Your task to perform on an android device: Show me productivity apps on the Play Store Image 0: 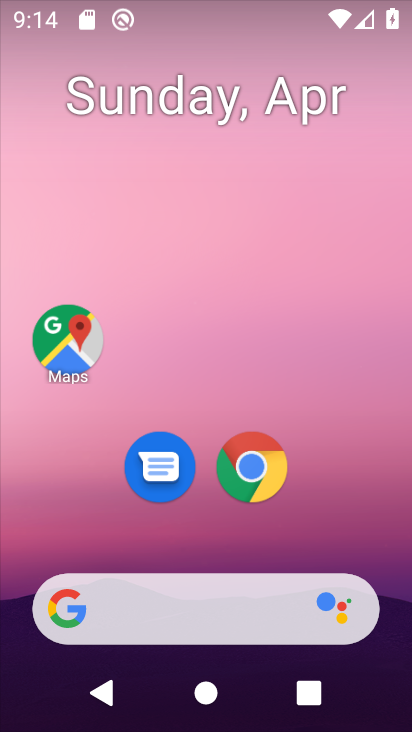
Step 0: drag from (307, 509) to (393, 0)
Your task to perform on an android device: Show me productivity apps on the Play Store Image 1: 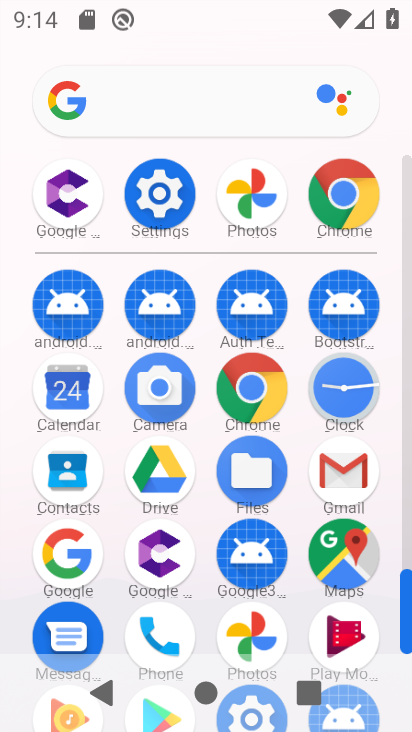
Step 1: drag from (201, 598) to (184, 338)
Your task to perform on an android device: Show me productivity apps on the Play Store Image 2: 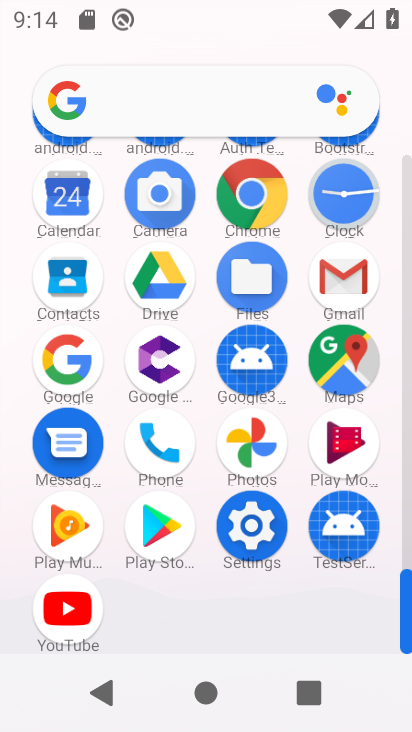
Step 2: click (160, 525)
Your task to perform on an android device: Show me productivity apps on the Play Store Image 3: 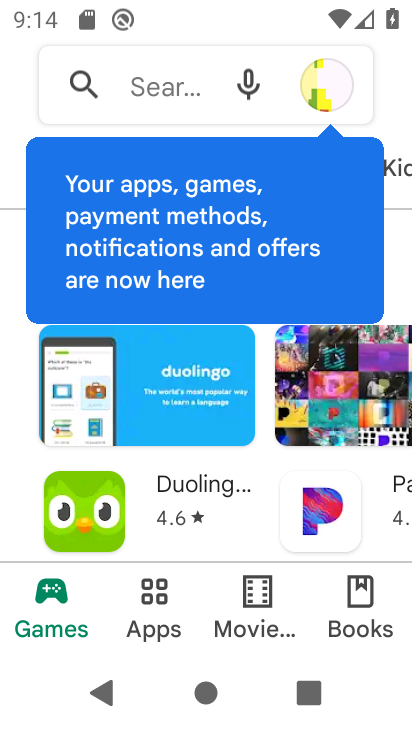
Step 3: click (162, 613)
Your task to perform on an android device: Show me productivity apps on the Play Store Image 4: 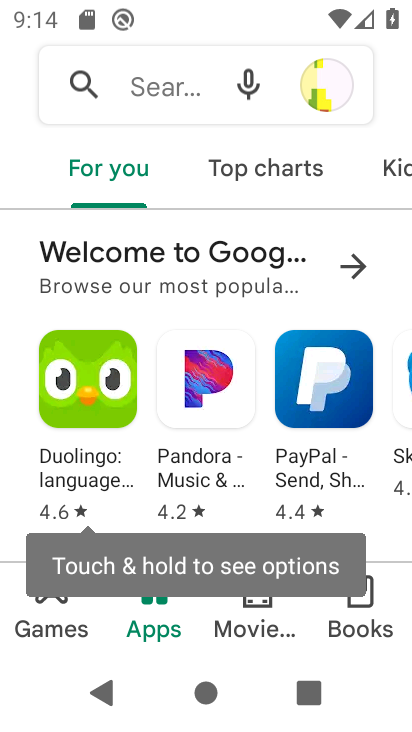
Step 4: drag from (362, 165) to (230, 137)
Your task to perform on an android device: Show me productivity apps on the Play Store Image 5: 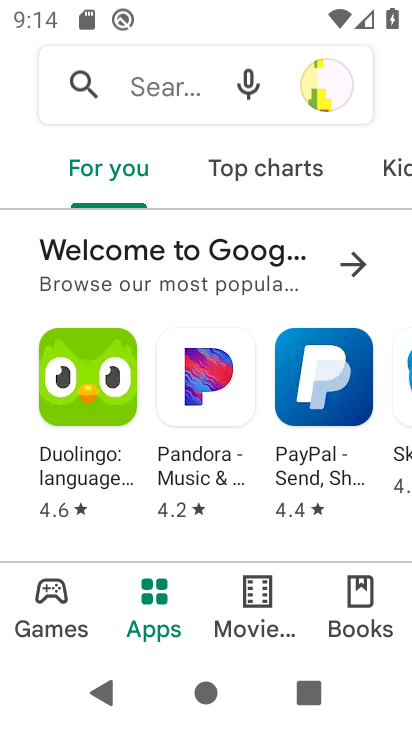
Step 5: drag from (384, 172) to (77, 180)
Your task to perform on an android device: Show me productivity apps on the Play Store Image 6: 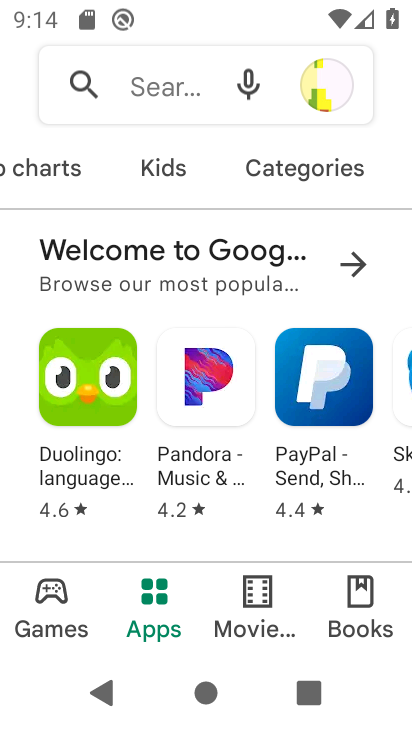
Step 6: click (322, 171)
Your task to perform on an android device: Show me productivity apps on the Play Store Image 7: 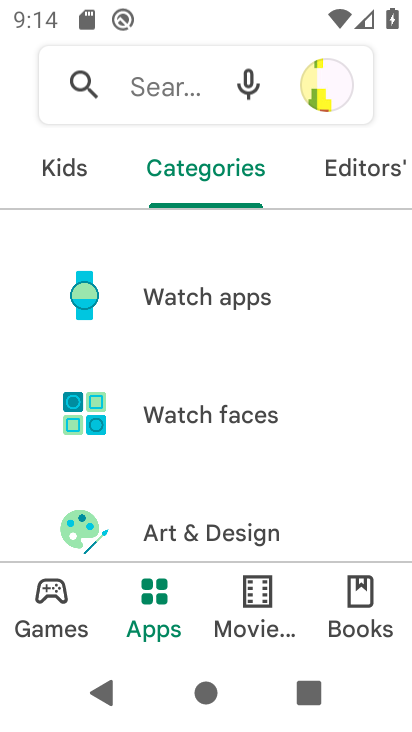
Step 7: drag from (240, 481) to (249, 227)
Your task to perform on an android device: Show me productivity apps on the Play Store Image 8: 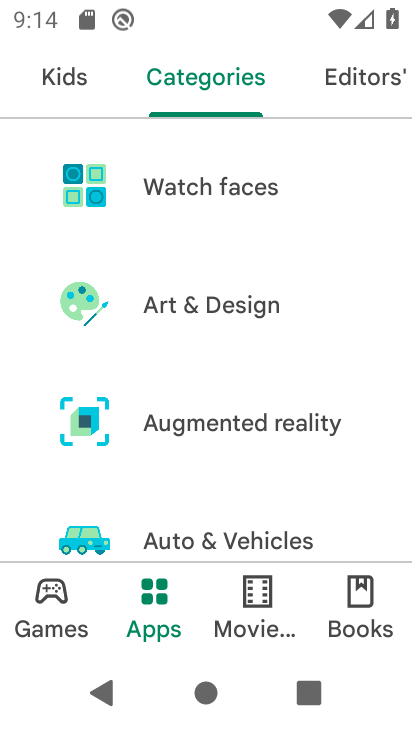
Step 8: drag from (252, 457) to (252, 302)
Your task to perform on an android device: Show me productivity apps on the Play Store Image 9: 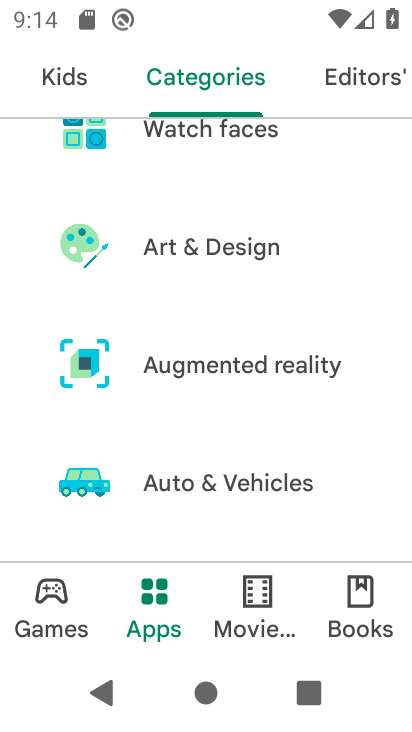
Step 9: drag from (227, 426) to (229, 325)
Your task to perform on an android device: Show me productivity apps on the Play Store Image 10: 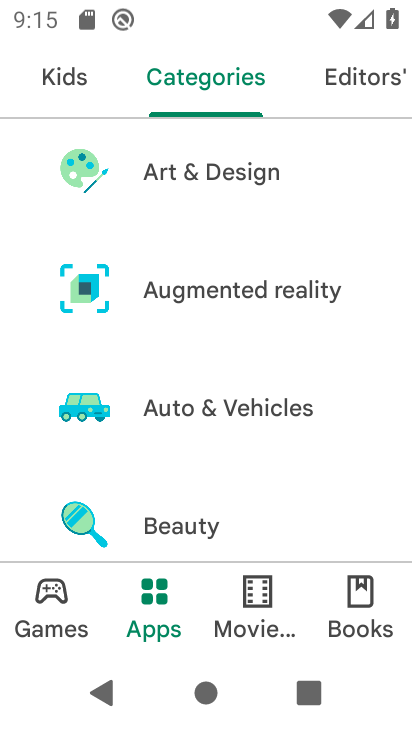
Step 10: drag from (229, 469) to (233, 311)
Your task to perform on an android device: Show me productivity apps on the Play Store Image 11: 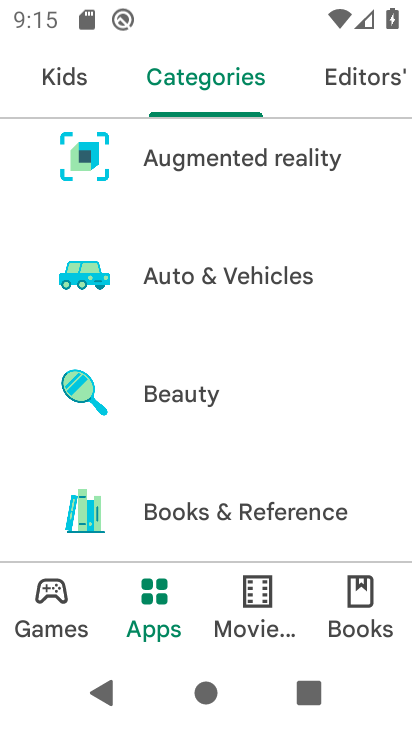
Step 11: drag from (232, 438) to (234, 282)
Your task to perform on an android device: Show me productivity apps on the Play Store Image 12: 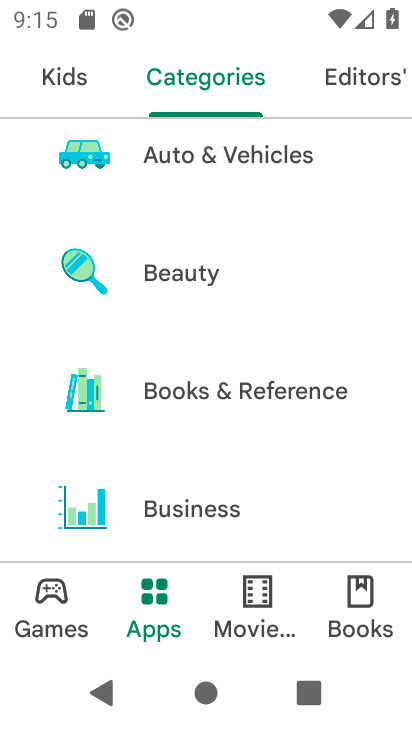
Step 12: drag from (241, 438) to (220, 286)
Your task to perform on an android device: Show me productivity apps on the Play Store Image 13: 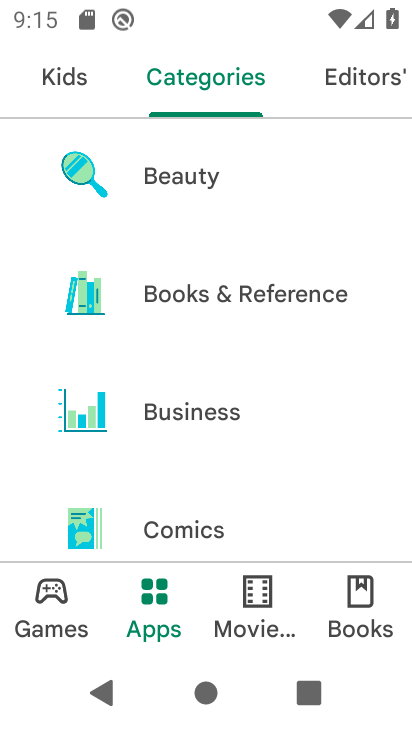
Step 13: drag from (221, 489) to (213, 275)
Your task to perform on an android device: Show me productivity apps on the Play Store Image 14: 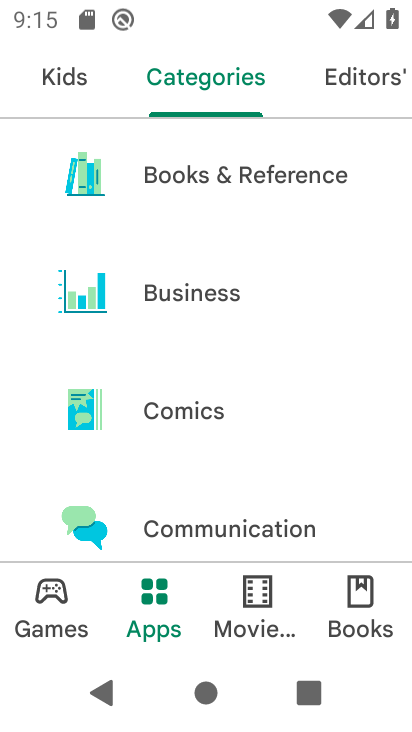
Step 14: drag from (223, 494) to (218, 312)
Your task to perform on an android device: Show me productivity apps on the Play Store Image 15: 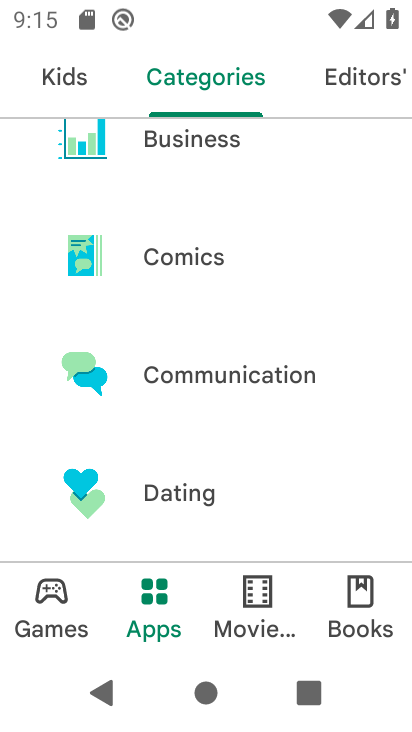
Step 15: drag from (210, 447) to (192, 286)
Your task to perform on an android device: Show me productivity apps on the Play Store Image 16: 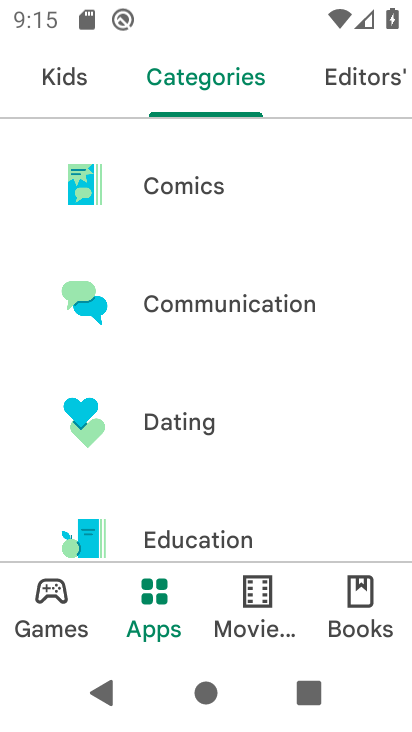
Step 16: drag from (208, 503) to (195, 231)
Your task to perform on an android device: Show me productivity apps on the Play Store Image 17: 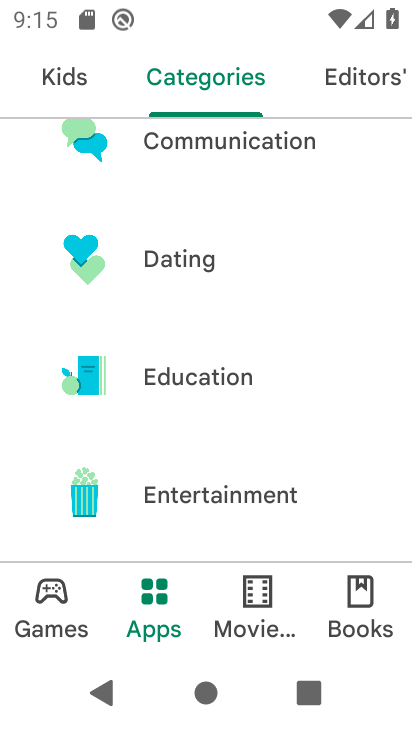
Step 17: drag from (321, 508) to (311, 259)
Your task to perform on an android device: Show me productivity apps on the Play Store Image 18: 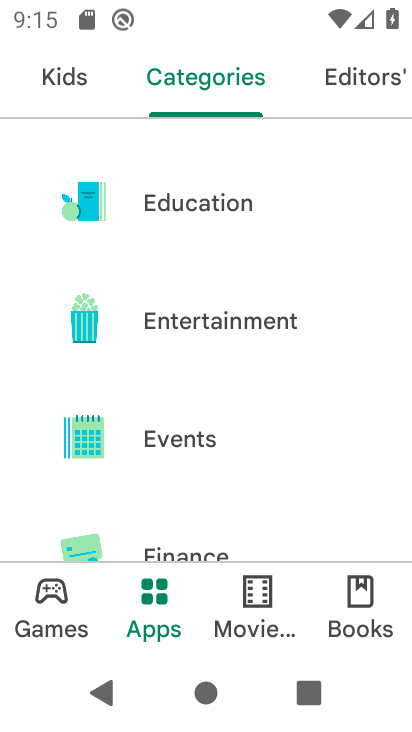
Step 18: drag from (311, 476) to (321, 285)
Your task to perform on an android device: Show me productivity apps on the Play Store Image 19: 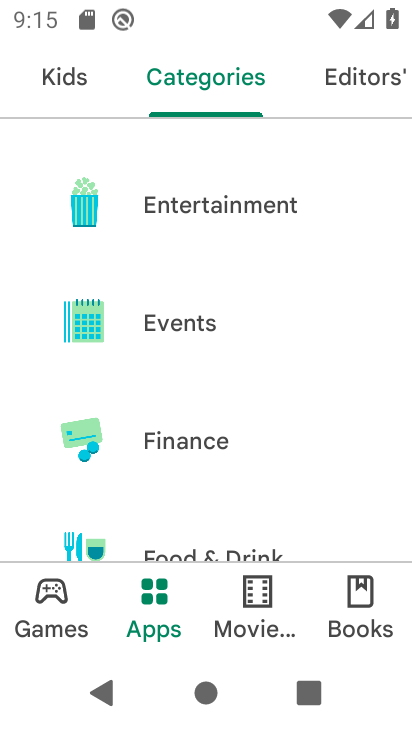
Step 19: drag from (313, 426) to (324, 211)
Your task to perform on an android device: Show me productivity apps on the Play Store Image 20: 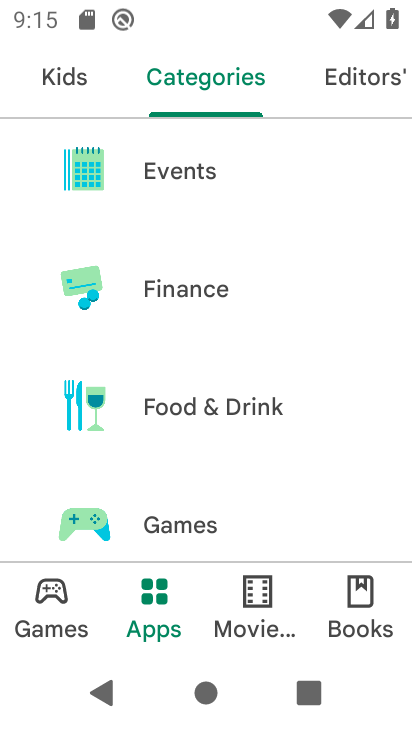
Step 20: drag from (334, 492) to (309, 243)
Your task to perform on an android device: Show me productivity apps on the Play Store Image 21: 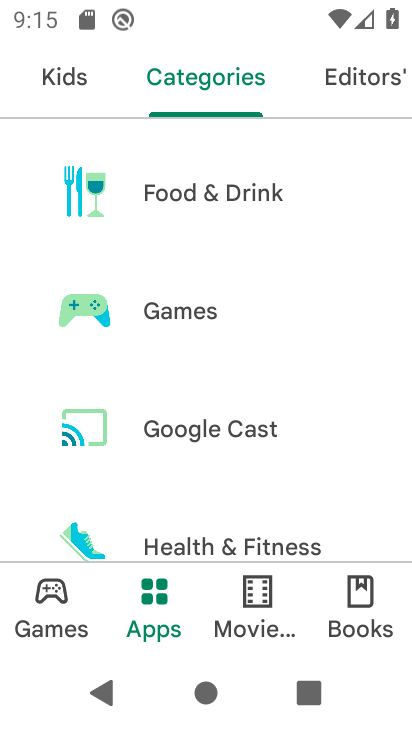
Step 21: drag from (259, 515) to (239, 265)
Your task to perform on an android device: Show me productivity apps on the Play Store Image 22: 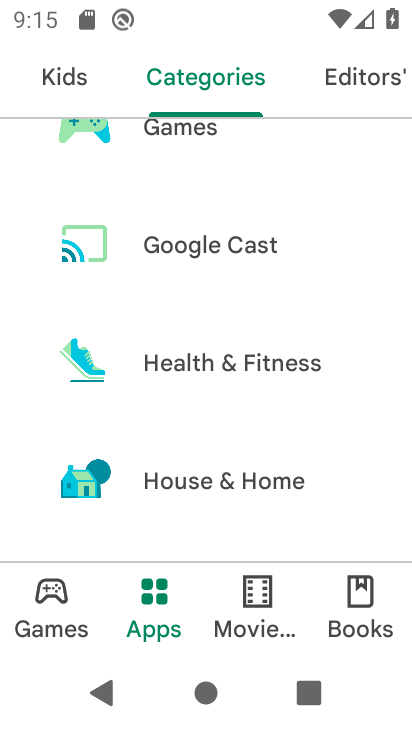
Step 22: drag from (268, 469) to (284, 68)
Your task to perform on an android device: Show me productivity apps on the Play Store Image 23: 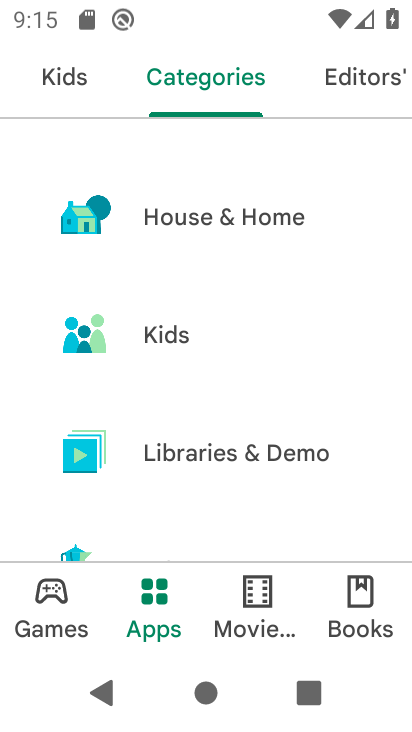
Step 23: drag from (231, 504) to (220, 138)
Your task to perform on an android device: Show me productivity apps on the Play Store Image 24: 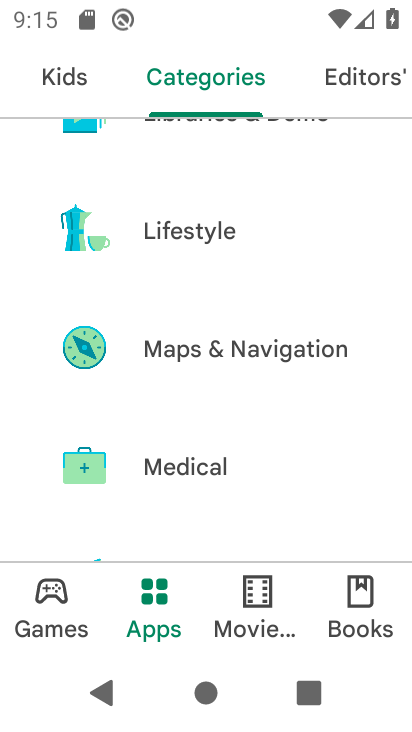
Step 24: drag from (228, 520) to (265, 116)
Your task to perform on an android device: Show me productivity apps on the Play Store Image 25: 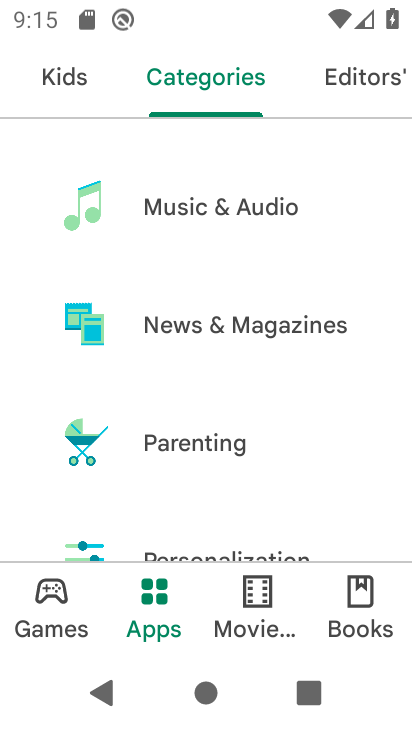
Step 25: drag from (261, 461) to (267, 106)
Your task to perform on an android device: Show me productivity apps on the Play Store Image 26: 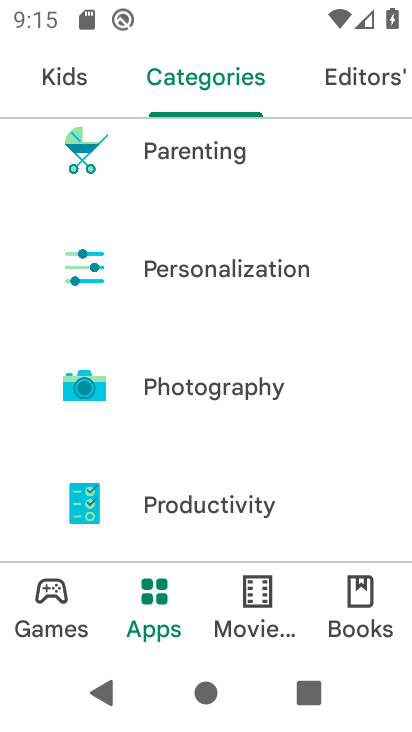
Step 26: click (240, 508)
Your task to perform on an android device: Show me productivity apps on the Play Store Image 27: 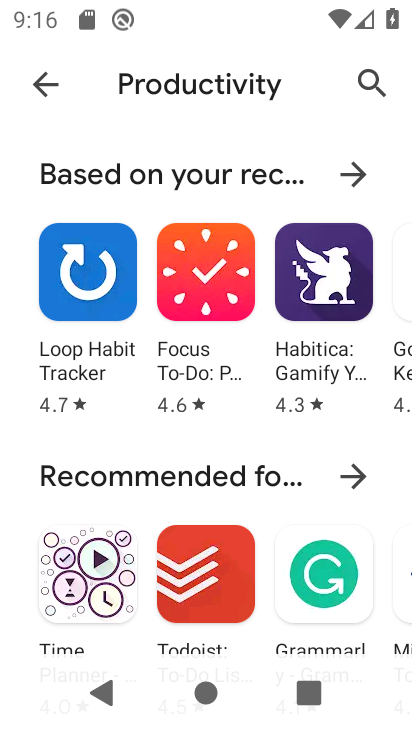
Step 27: task complete